Your task to perform on an android device: stop showing notifications on the lock screen Image 0: 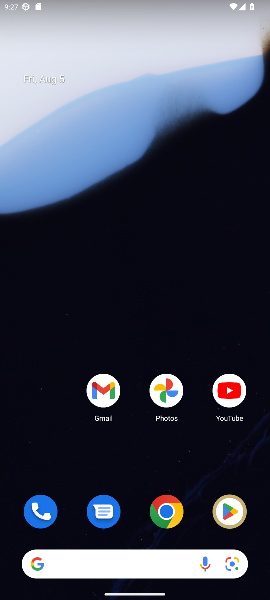
Step 0: drag from (113, 564) to (121, 332)
Your task to perform on an android device: stop showing notifications on the lock screen Image 1: 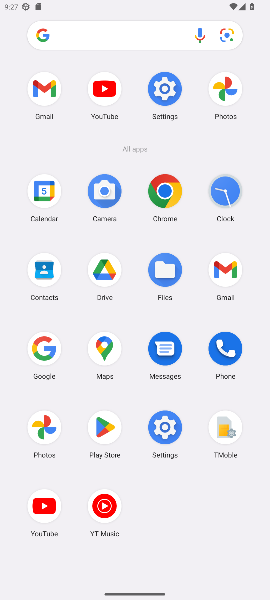
Step 1: click (165, 87)
Your task to perform on an android device: stop showing notifications on the lock screen Image 2: 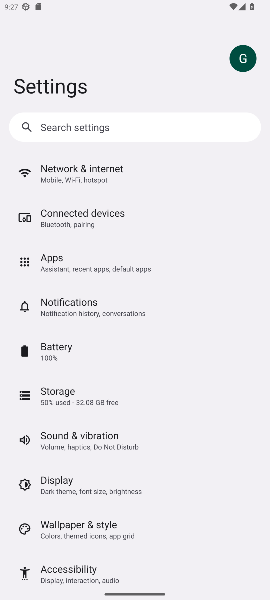
Step 2: click (89, 312)
Your task to perform on an android device: stop showing notifications on the lock screen Image 3: 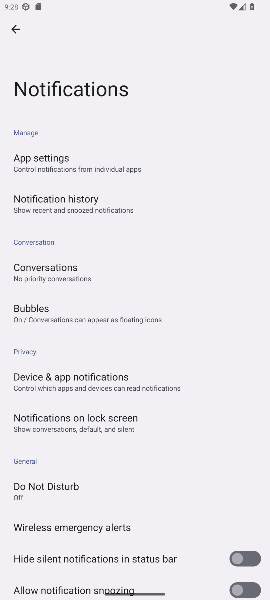
Step 3: click (91, 420)
Your task to perform on an android device: stop showing notifications on the lock screen Image 4: 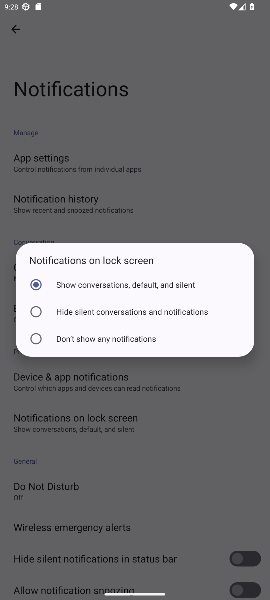
Step 4: click (36, 335)
Your task to perform on an android device: stop showing notifications on the lock screen Image 5: 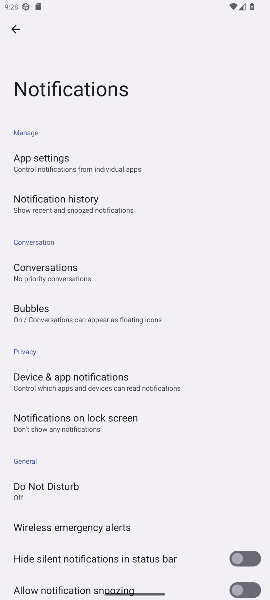
Step 5: task complete